Your task to perform on an android device: Clear the shopping cart on amazon. Search for dell alienware on amazon, select the first entry, and add it to the cart. Image 0: 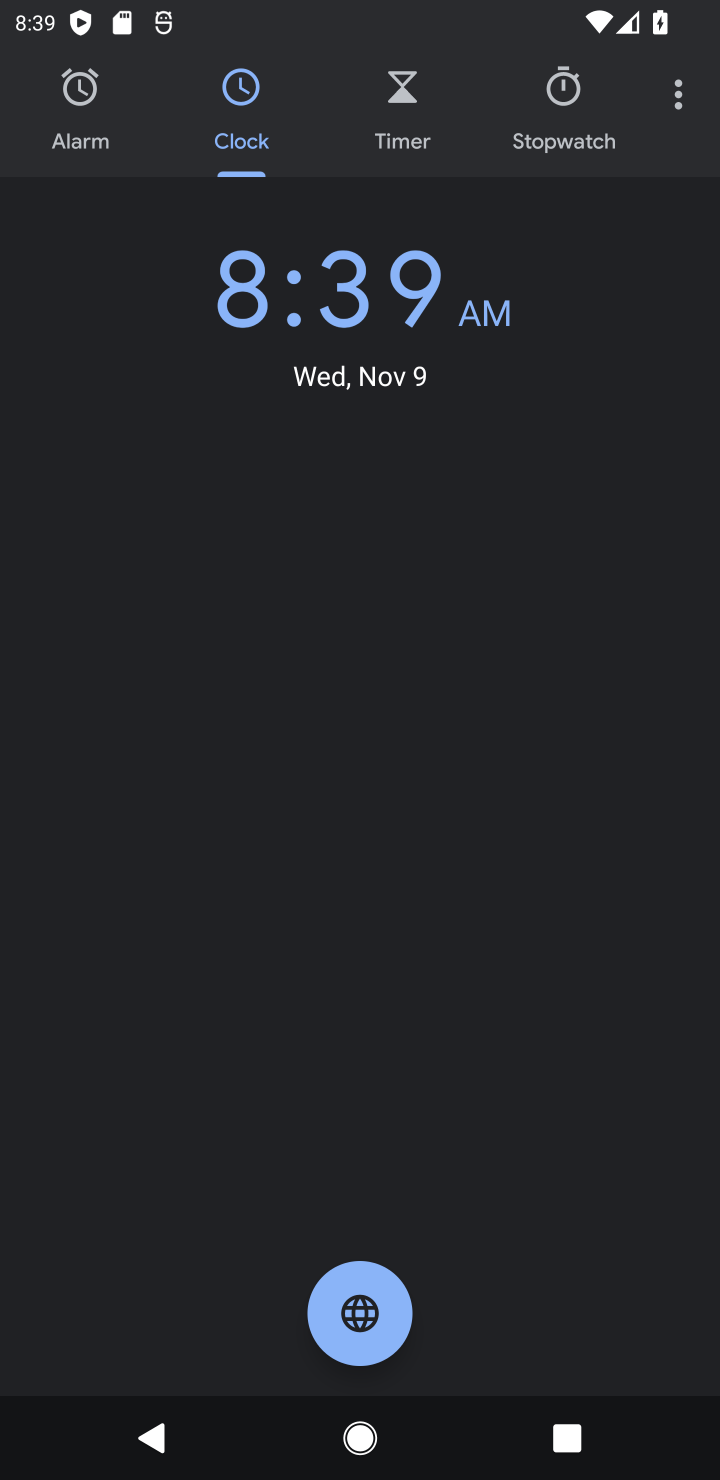
Step 0: press home button
Your task to perform on an android device: Clear the shopping cart on amazon. Search for dell alienware on amazon, select the first entry, and add it to the cart. Image 1: 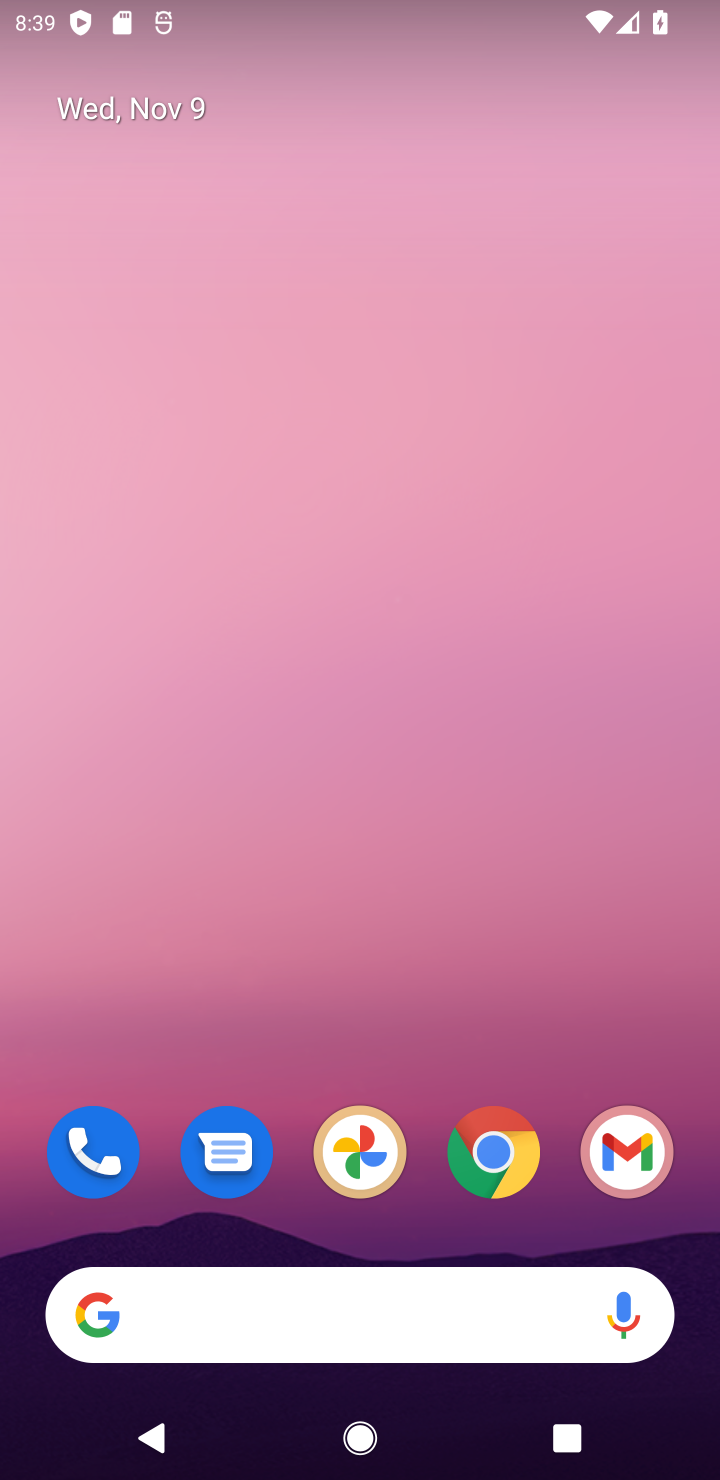
Step 1: click (494, 1161)
Your task to perform on an android device: Clear the shopping cart on amazon. Search for dell alienware on amazon, select the first entry, and add it to the cart. Image 2: 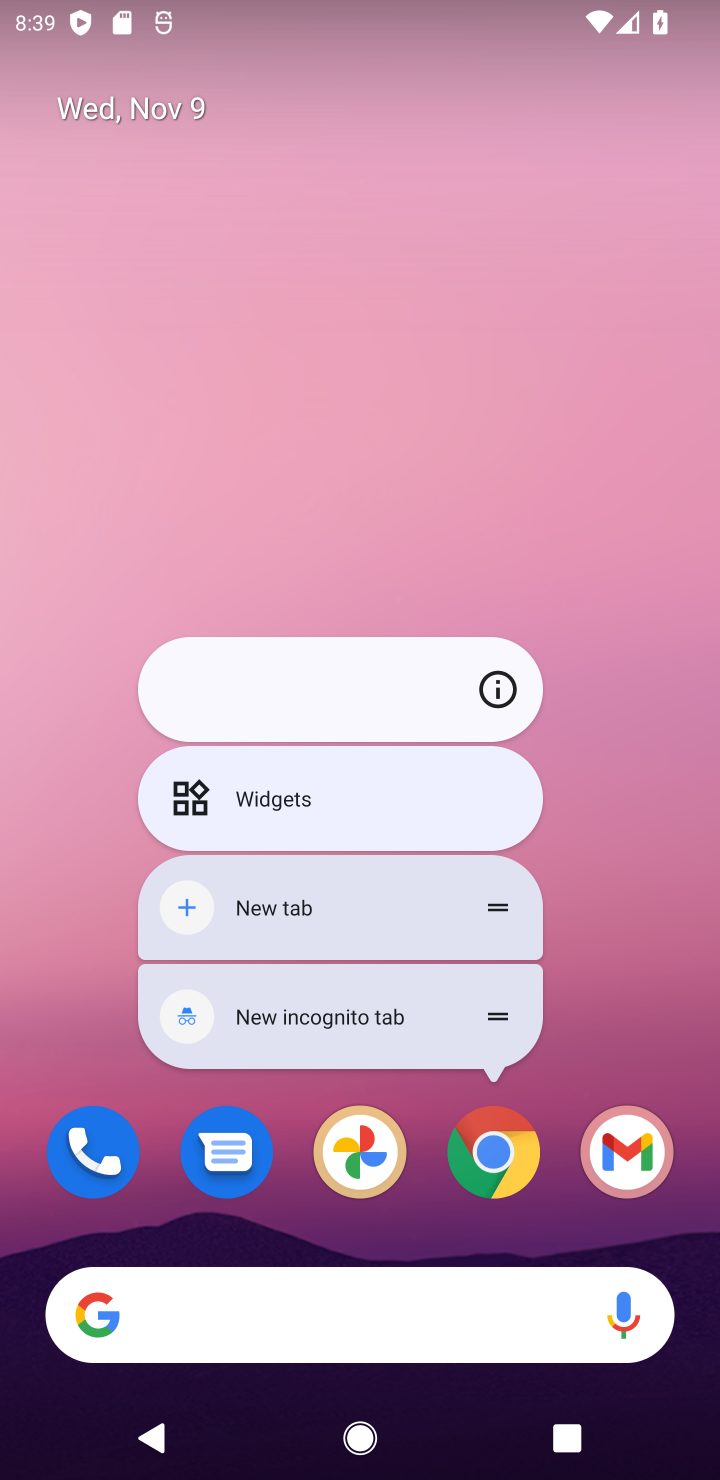
Step 2: click (494, 1159)
Your task to perform on an android device: Clear the shopping cart on amazon. Search for dell alienware on amazon, select the first entry, and add it to the cart. Image 3: 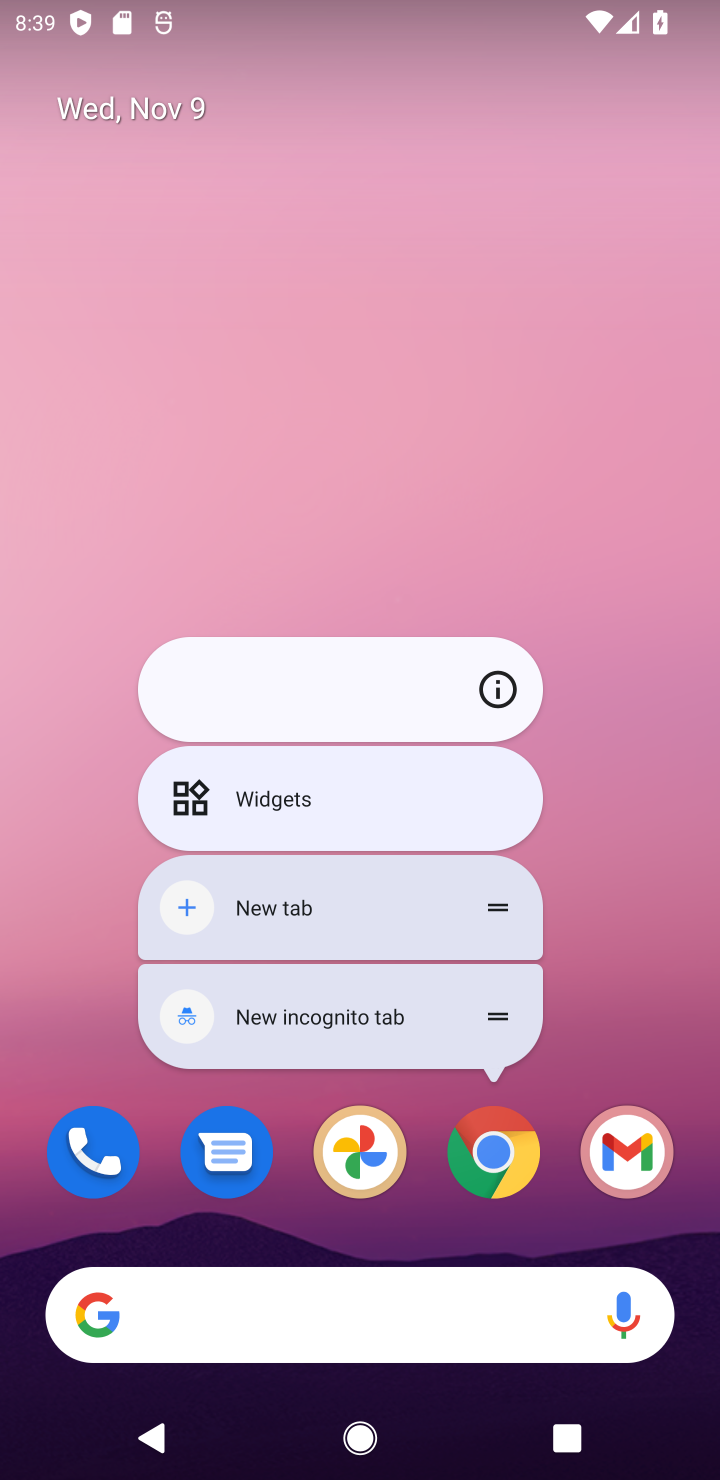
Step 3: click (494, 1165)
Your task to perform on an android device: Clear the shopping cart on amazon. Search for dell alienware on amazon, select the first entry, and add it to the cart. Image 4: 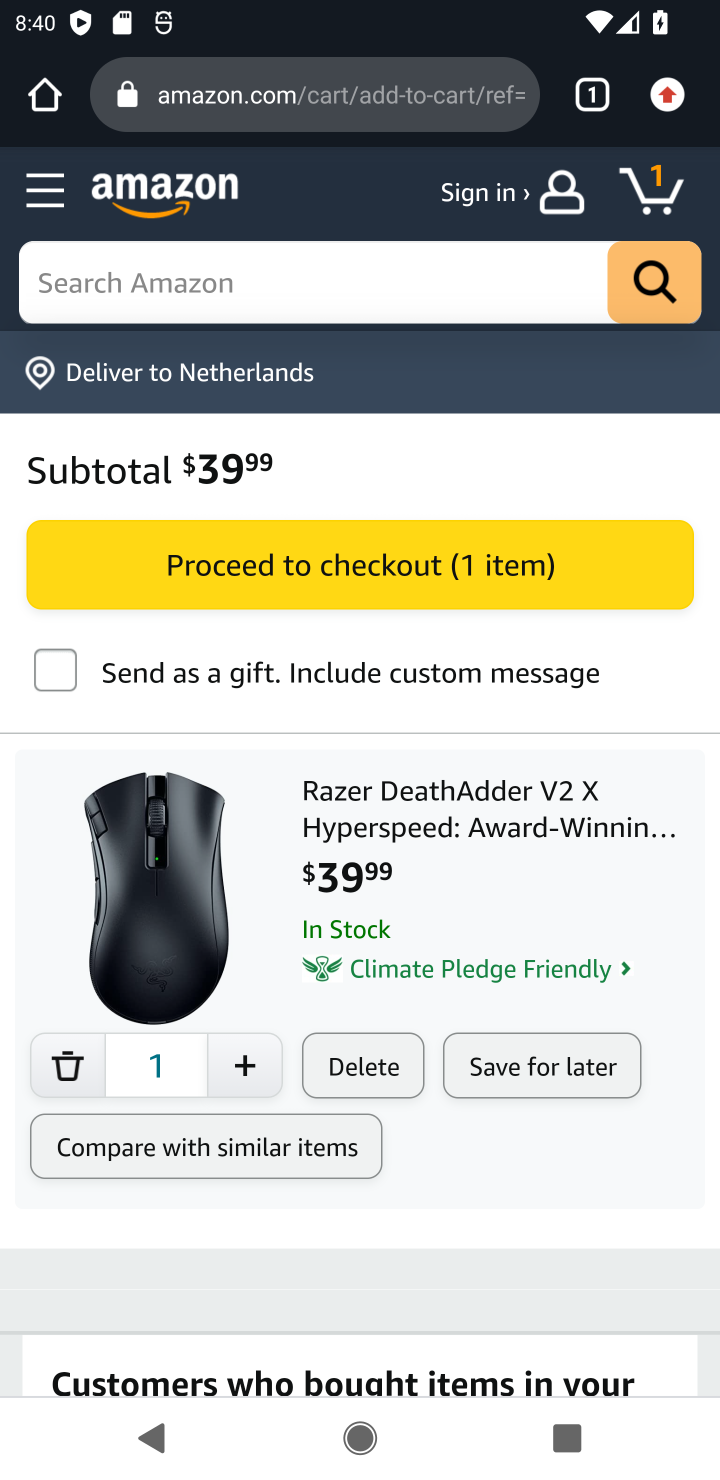
Step 4: click (215, 269)
Your task to perform on an android device: Clear the shopping cart on amazon. Search for dell alienware on amazon, select the first entry, and add it to the cart. Image 5: 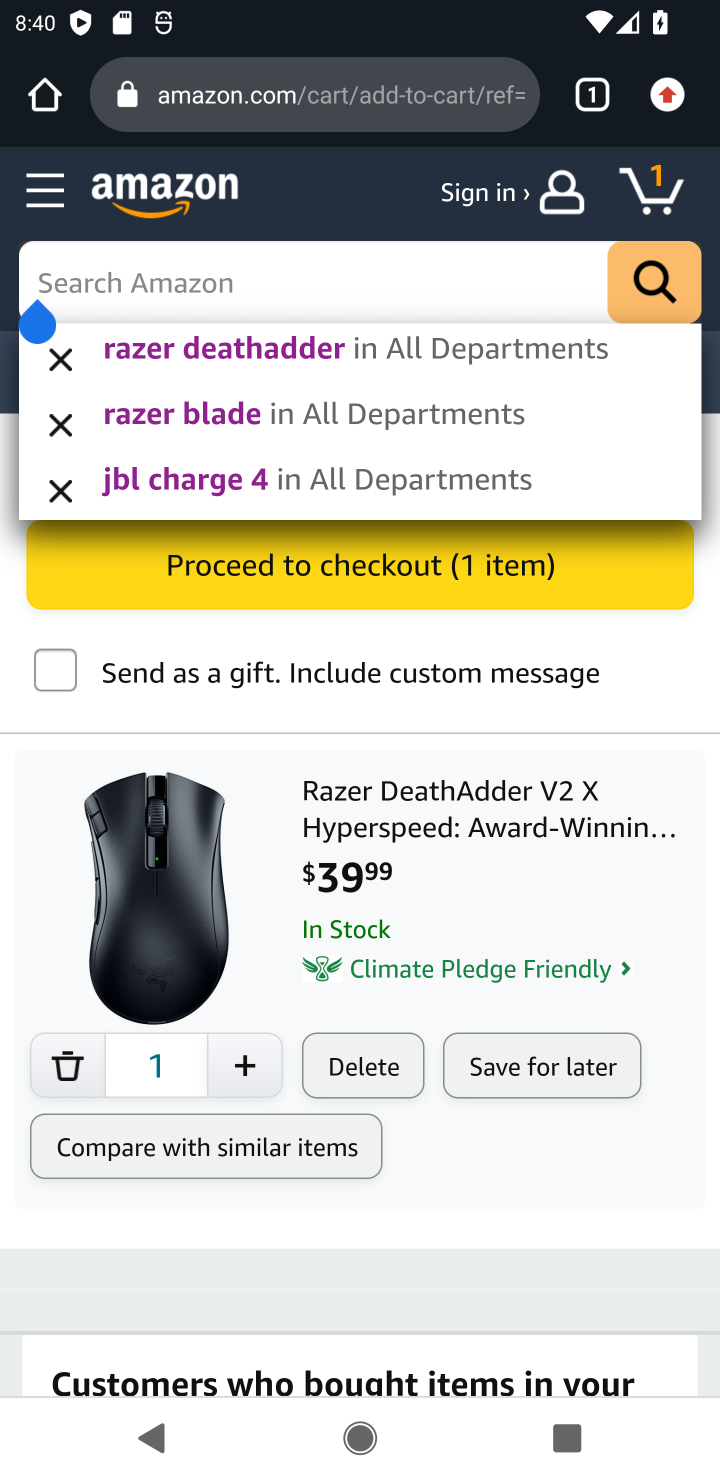
Step 5: click (354, 1062)
Your task to perform on an android device: Clear the shopping cart on amazon. Search for dell alienware on amazon, select the first entry, and add it to the cart. Image 6: 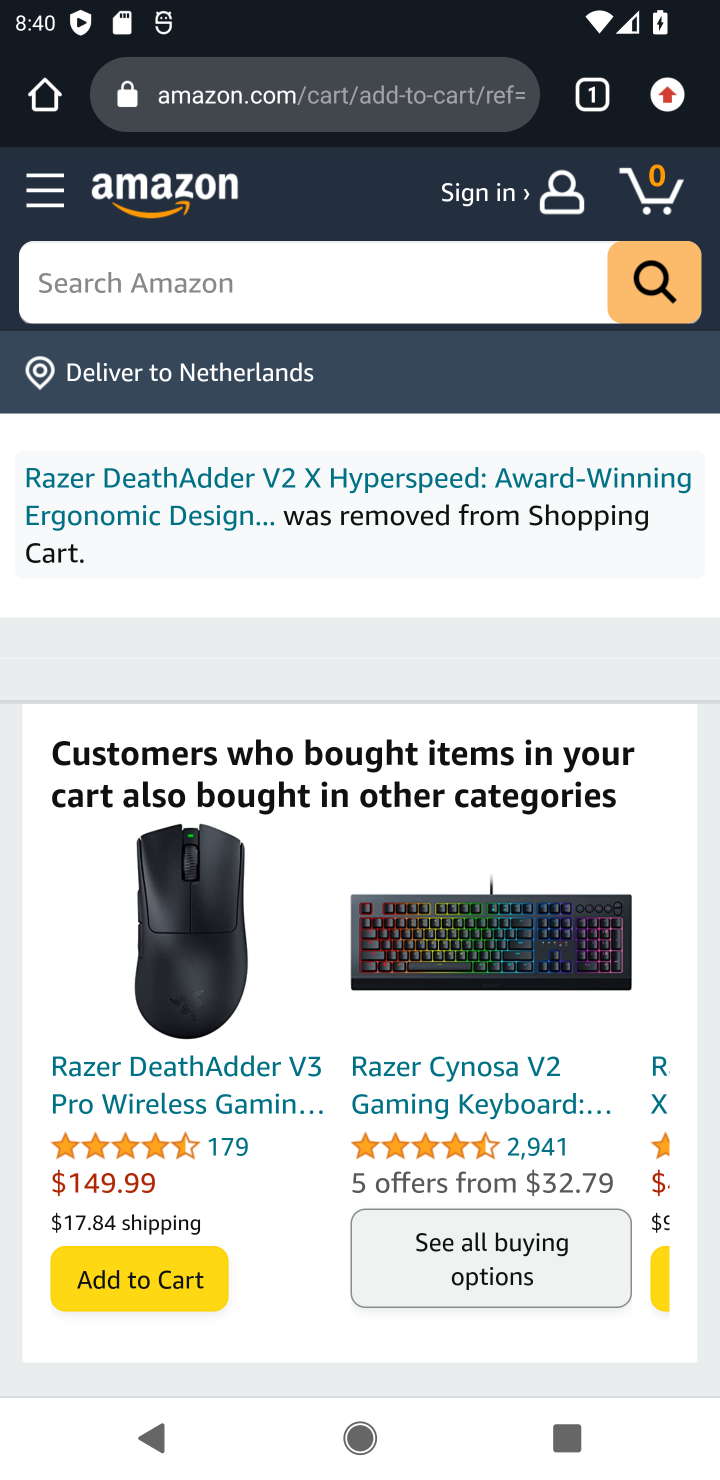
Step 6: click (174, 293)
Your task to perform on an android device: Clear the shopping cart on amazon. Search for dell alienware on amazon, select the first entry, and add it to the cart. Image 7: 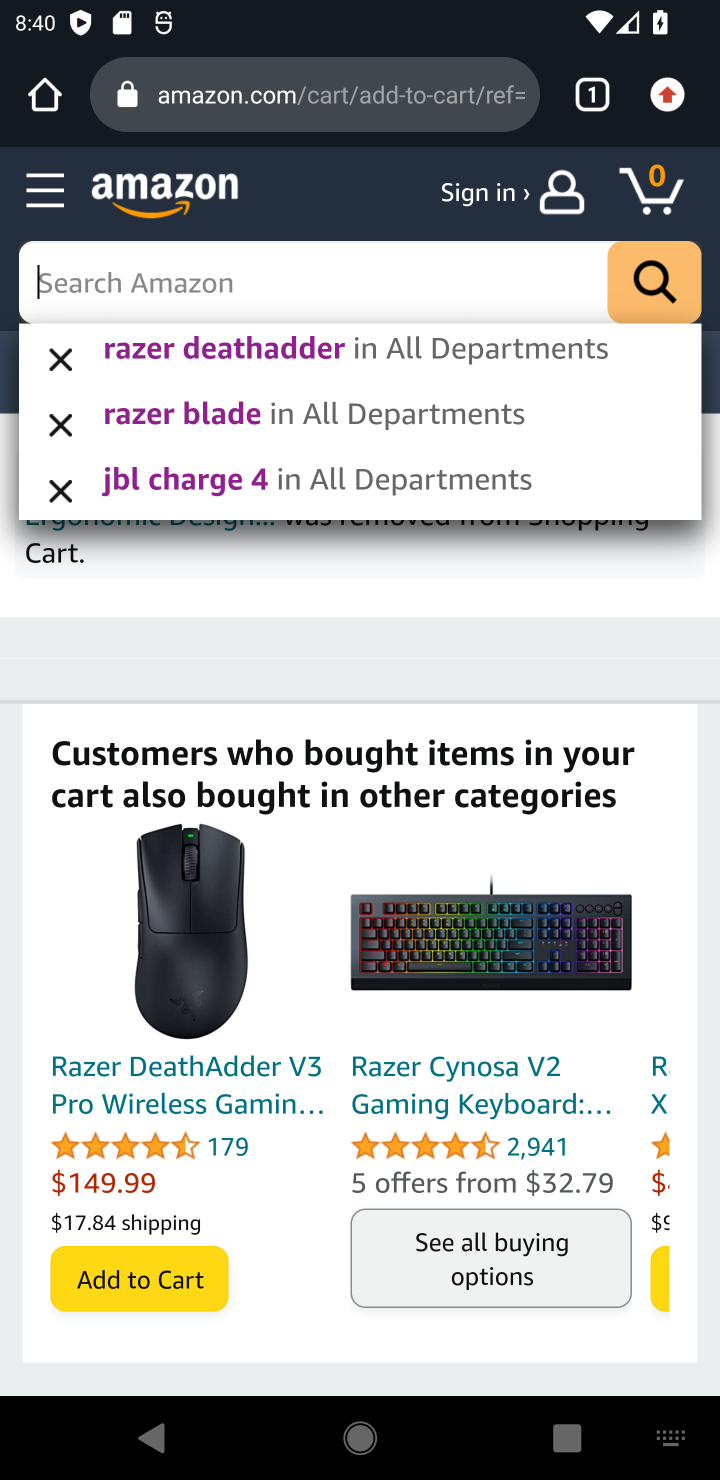
Step 7: type "dell alienware"
Your task to perform on an android device: Clear the shopping cart on amazon. Search for dell alienware on amazon, select the first entry, and add it to the cart. Image 8: 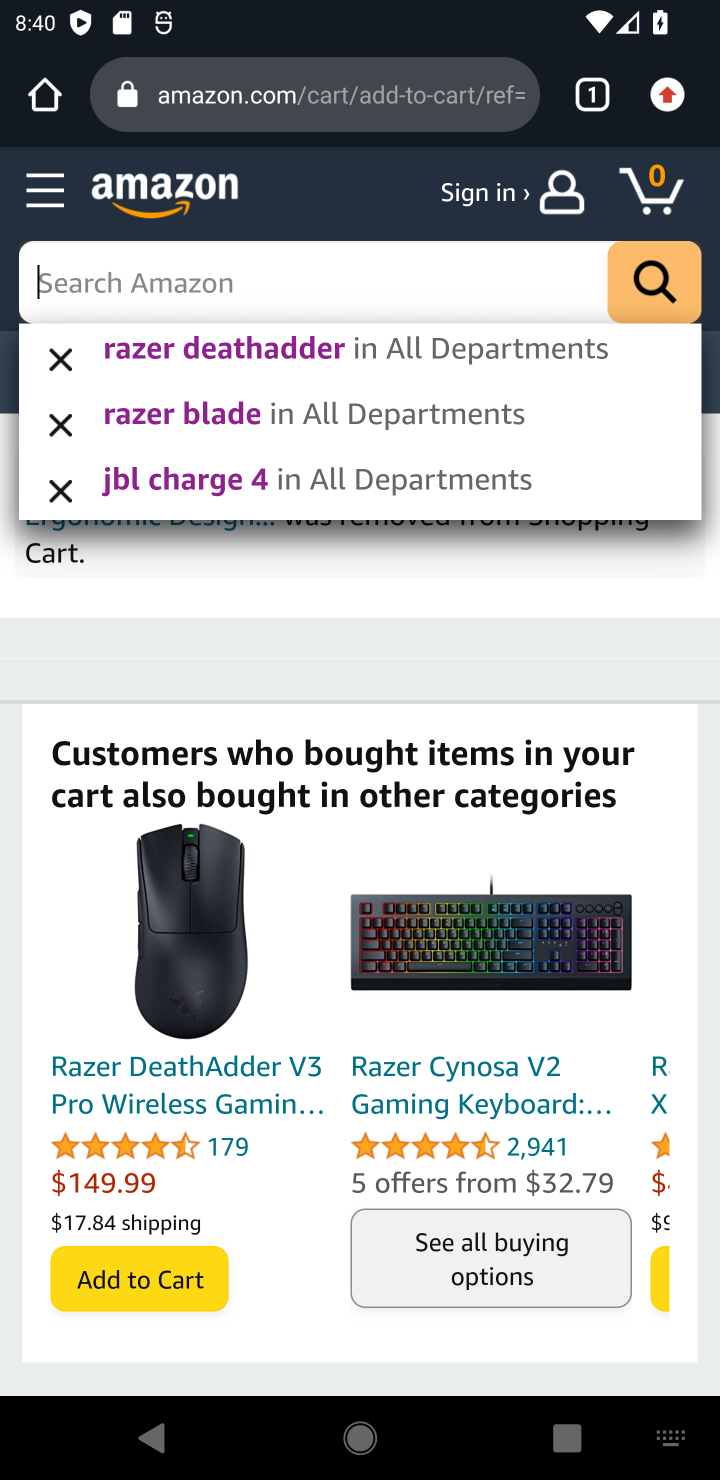
Step 8: press enter
Your task to perform on an android device: Clear the shopping cart on amazon. Search for dell alienware on amazon, select the first entry, and add it to the cart. Image 9: 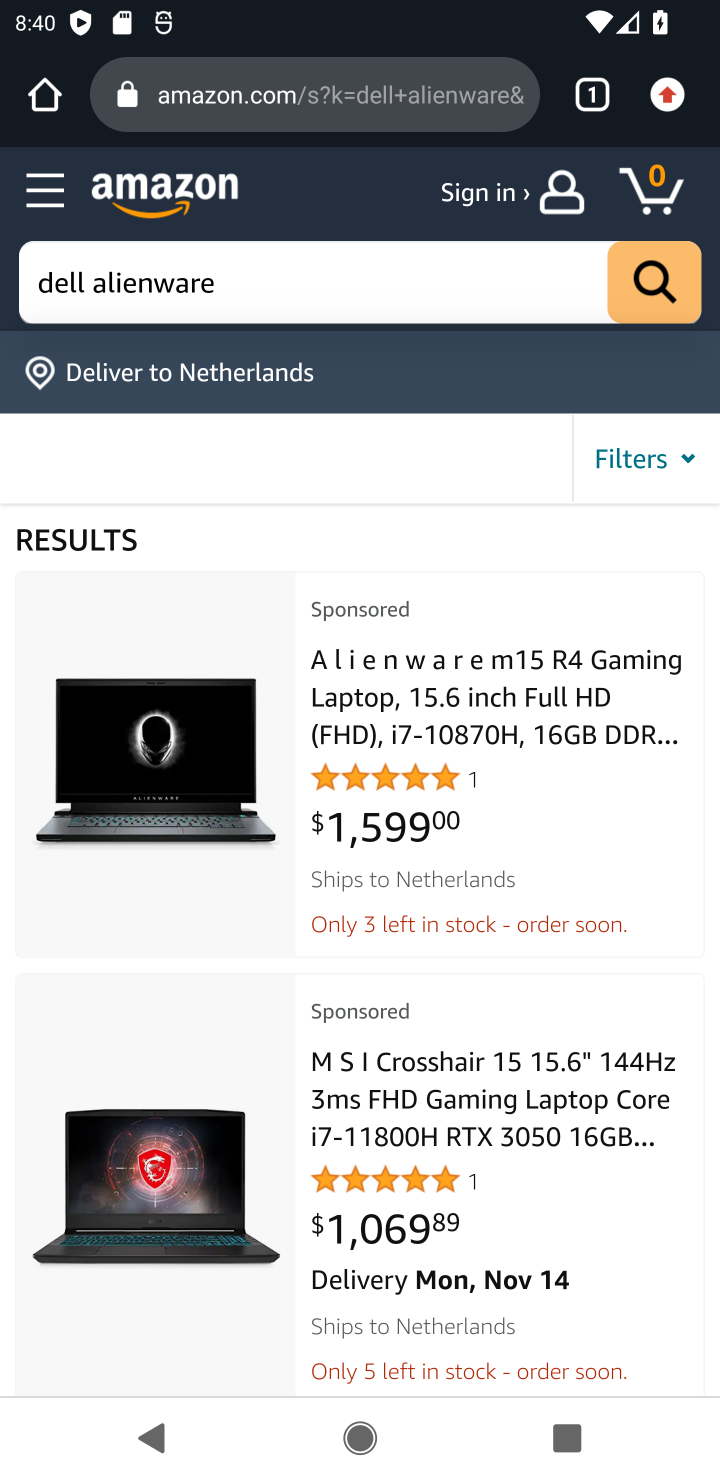
Step 9: click (459, 723)
Your task to perform on an android device: Clear the shopping cart on amazon. Search for dell alienware on amazon, select the first entry, and add it to the cart. Image 10: 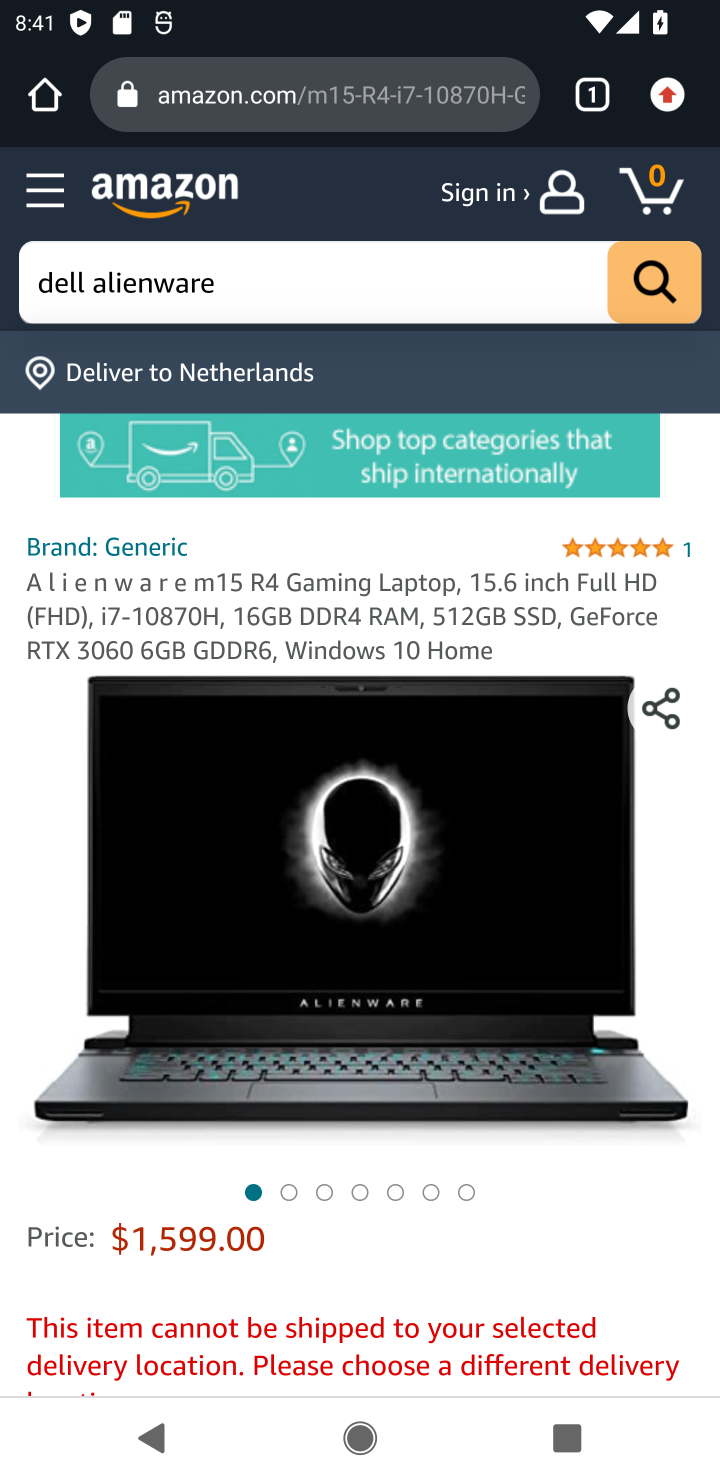
Step 10: task complete